Your task to perform on an android device: Set the phone to "Do not disturb". Image 0: 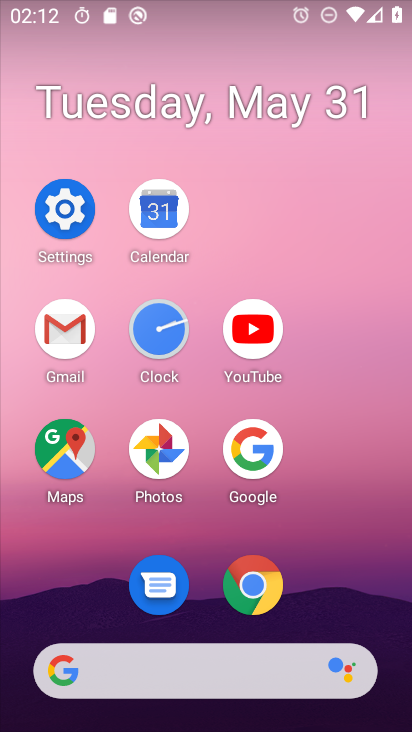
Step 0: click (59, 224)
Your task to perform on an android device: Set the phone to "Do not disturb". Image 1: 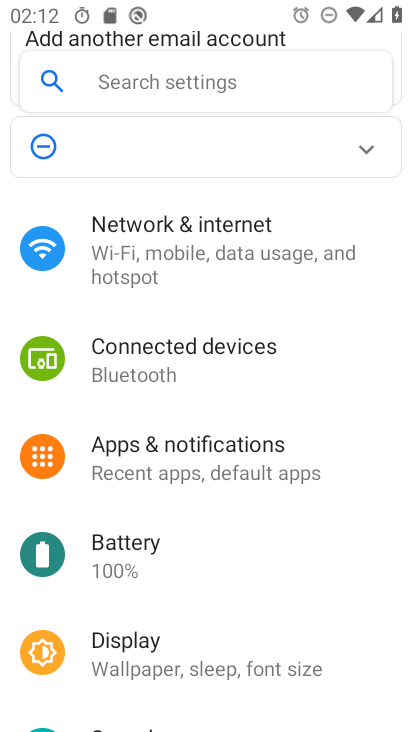
Step 1: drag from (233, 603) to (195, 170)
Your task to perform on an android device: Set the phone to "Do not disturb". Image 2: 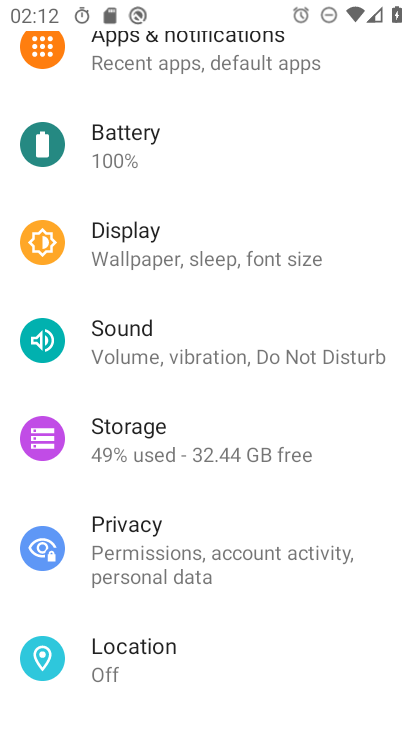
Step 2: click (252, 371)
Your task to perform on an android device: Set the phone to "Do not disturb". Image 3: 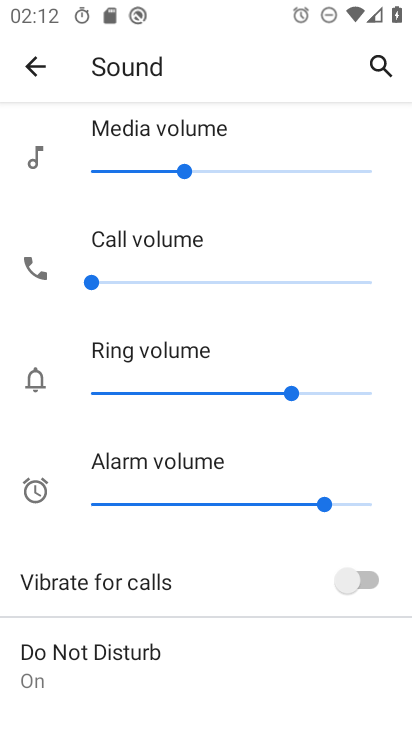
Step 3: task complete